Your task to perform on an android device: Open calendar and show me the first week of next month Image 0: 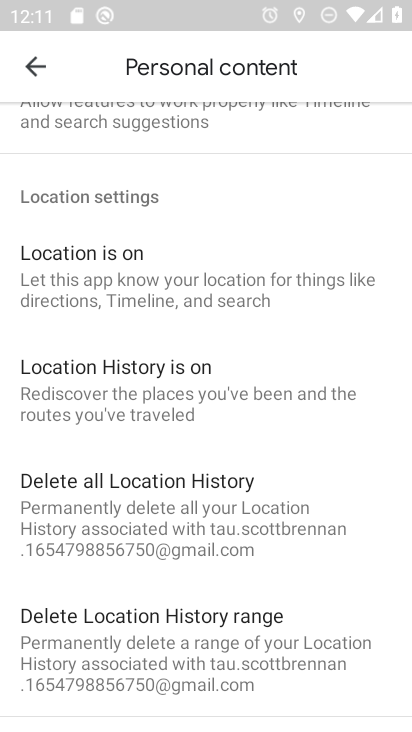
Step 0: press home button
Your task to perform on an android device: Open calendar and show me the first week of next month Image 1: 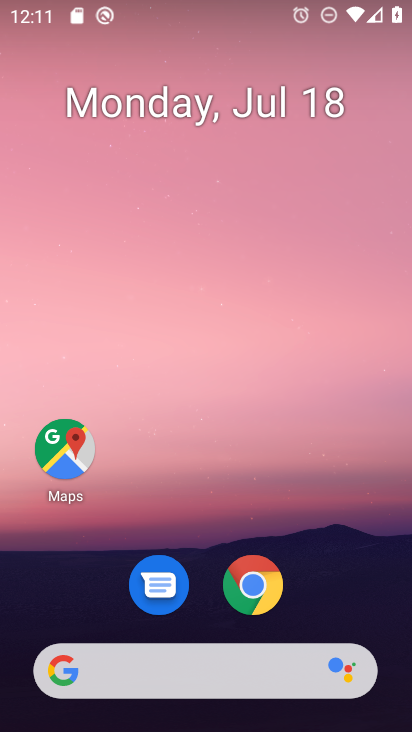
Step 1: drag from (347, 562) to (353, 0)
Your task to perform on an android device: Open calendar and show me the first week of next month Image 2: 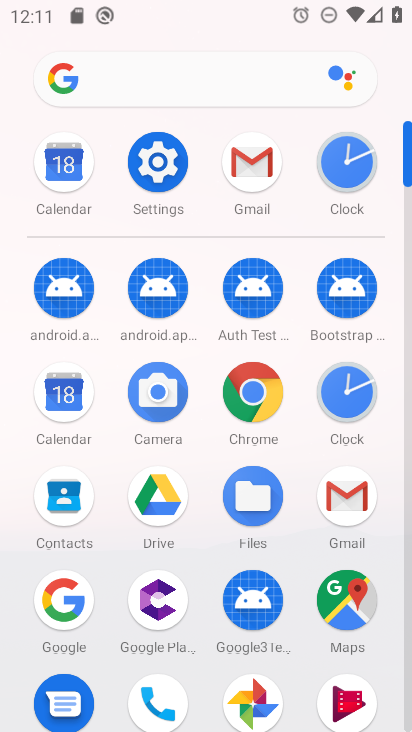
Step 2: drag from (204, 583) to (241, 248)
Your task to perform on an android device: Open calendar and show me the first week of next month Image 3: 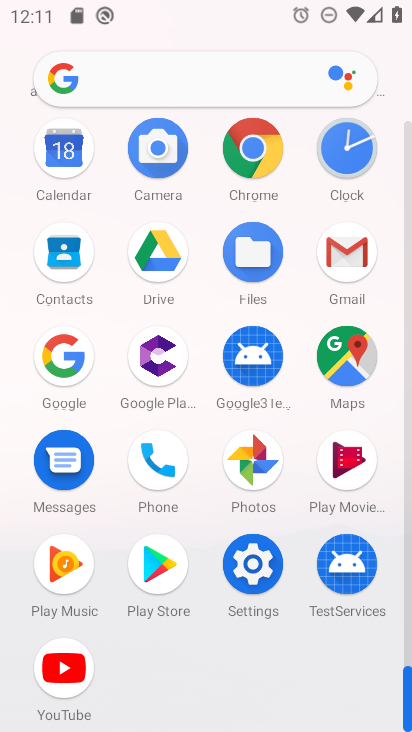
Step 3: click (268, 462)
Your task to perform on an android device: Open calendar and show me the first week of next month Image 4: 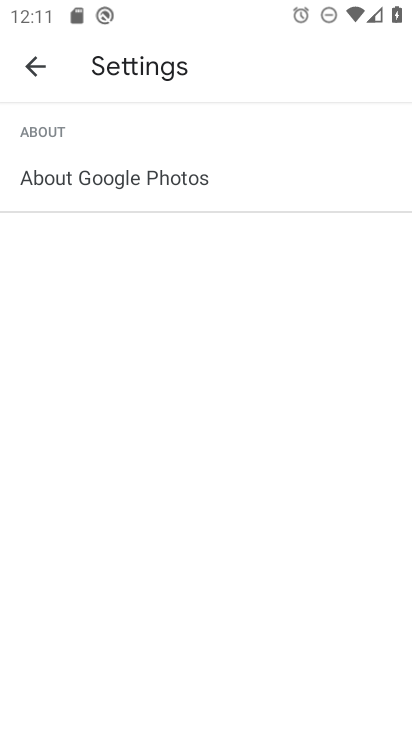
Step 4: click (39, 54)
Your task to perform on an android device: Open calendar and show me the first week of next month Image 5: 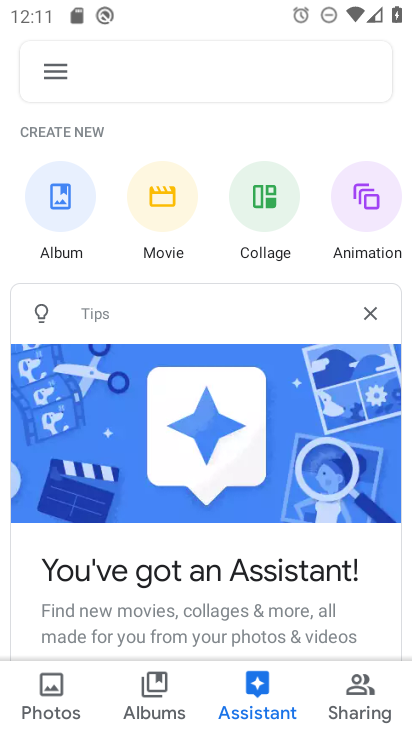
Step 5: click (47, 62)
Your task to perform on an android device: Open calendar and show me the first week of next month Image 6: 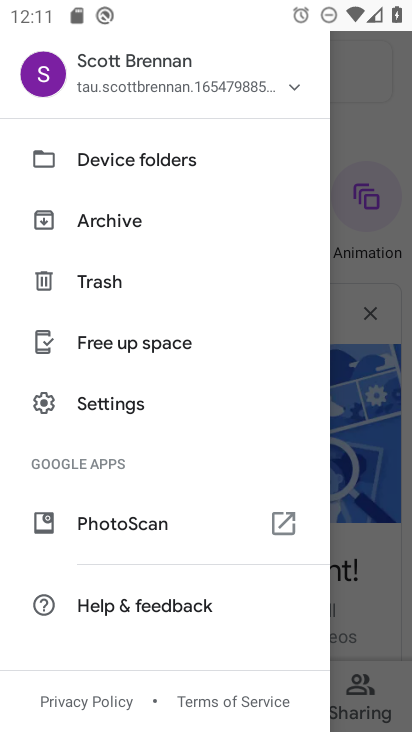
Step 6: click (123, 403)
Your task to perform on an android device: Open calendar and show me the first week of next month Image 7: 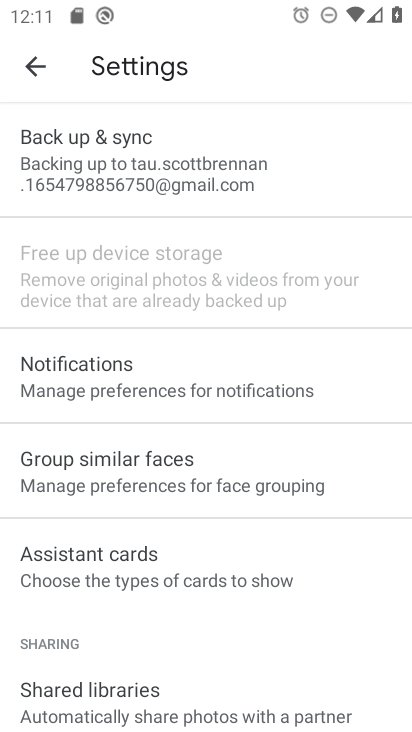
Step 7: click (153, 169)
Your task to perform on an android device: Open calendar and show me the first week of next month Image 8: 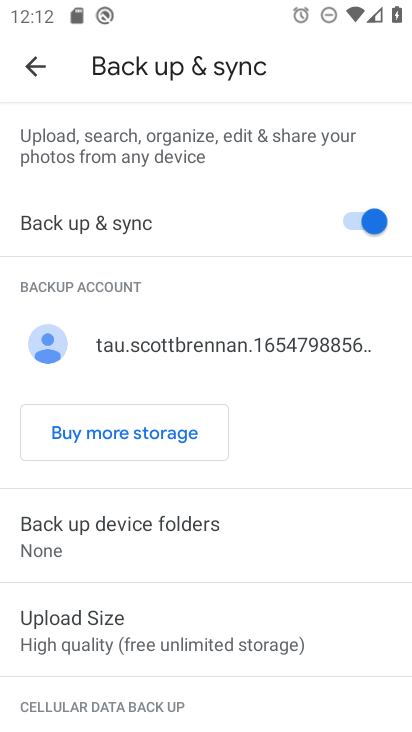
Step 8: click (209, 634)
Your task to perform on an android device: Open calendar and show me the first week of next month Image 9: 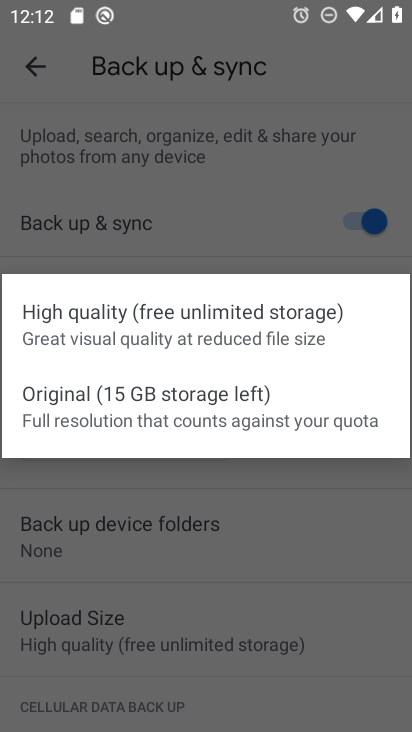
Step 9: click (244, 409)
Your task to perform on an android device: Open calendar and show me the first week of next month Image 10: 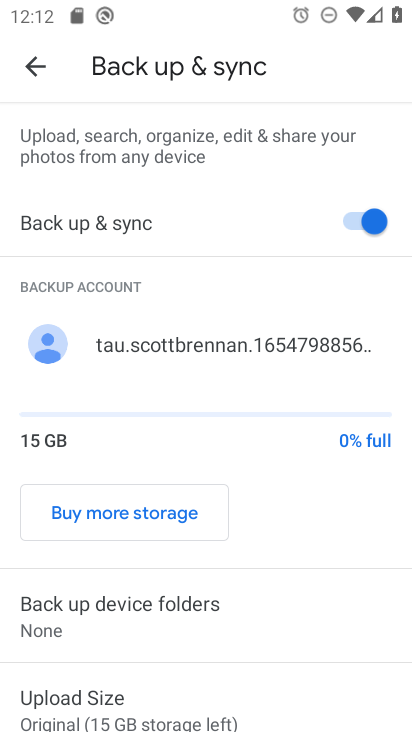
Step 10: task complete